Your task to perform on an android device: turn pop-ups on in chrome Image 0: 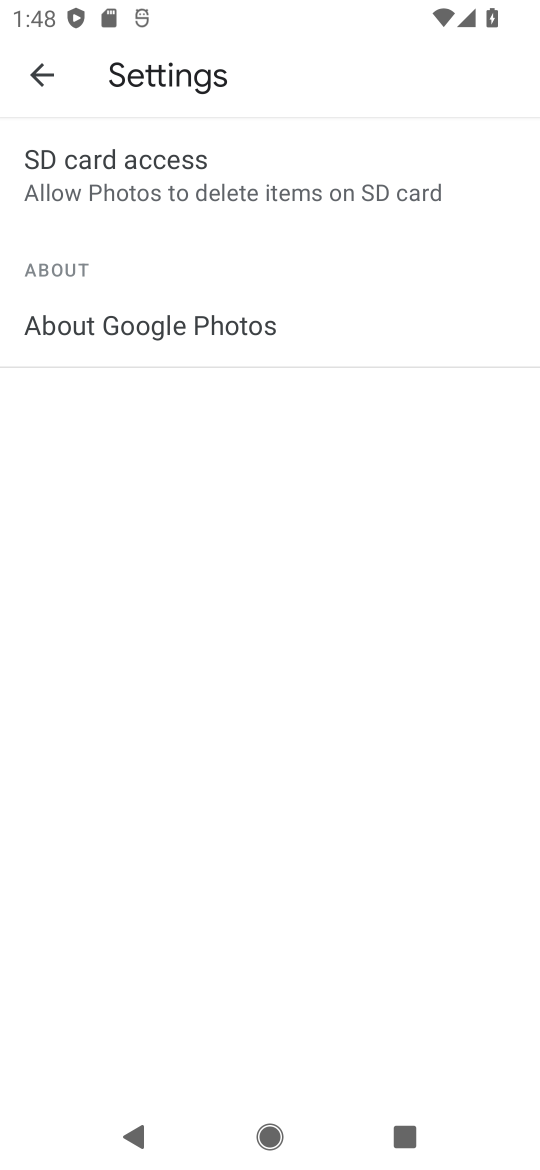
Step 0: press home button
Your task to perform on an android device: turn pop-ups on in chrome Image 1: 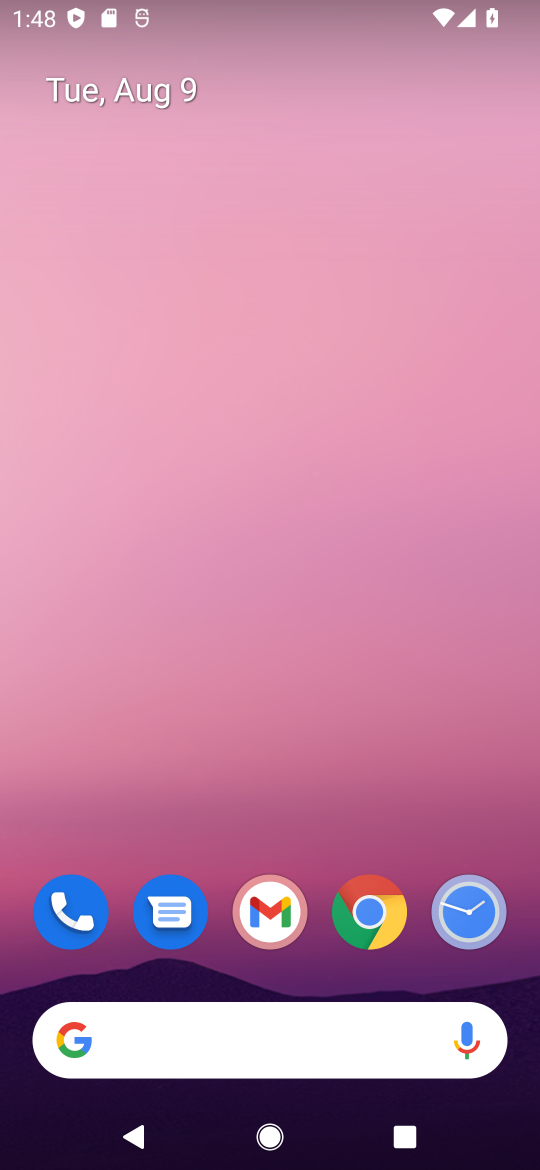
Step 1: click (372, 909)
Your task to perform on an android device: turn pop-ups on in chrome Image 2: 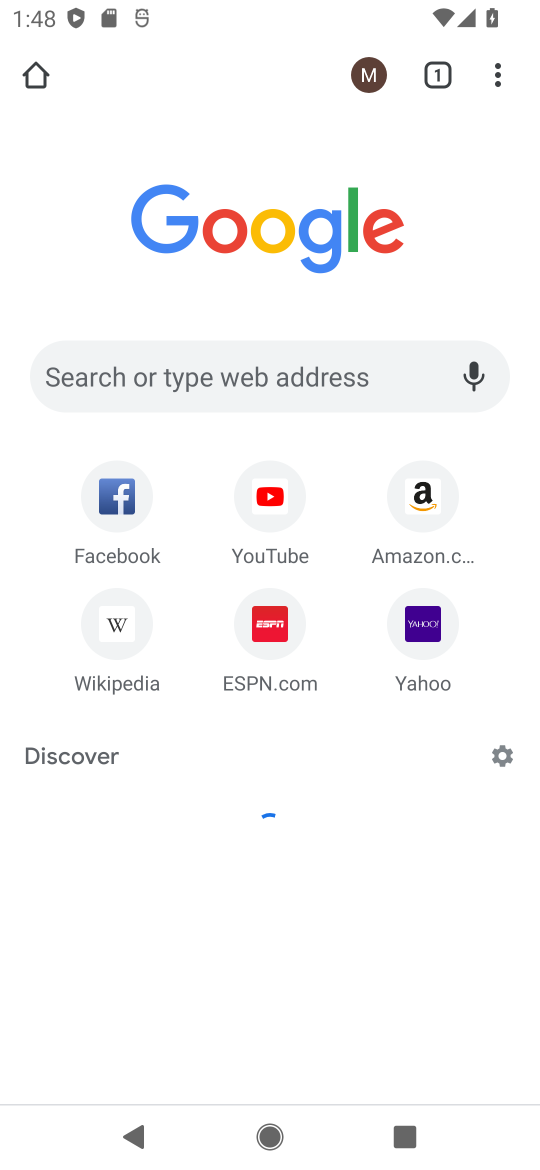
Step 2: click (499, 75)
Your task to perform on an android device: turn pop-ups on in chrome Image 3: 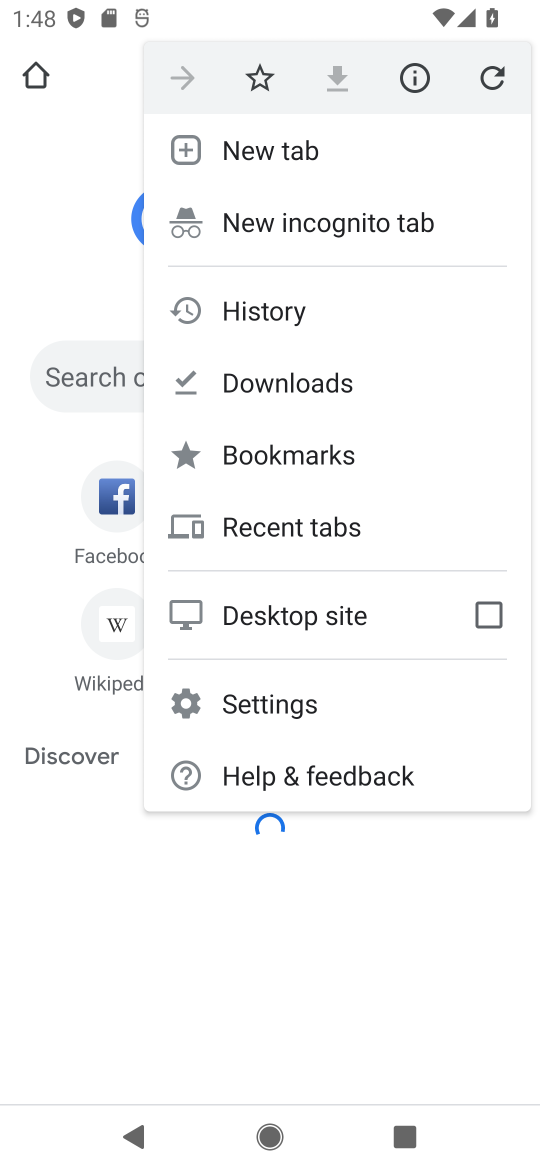
Step 3: click (277, 706)
Your task to perform on an android device: turn pop-ups on in chrome Image 4: 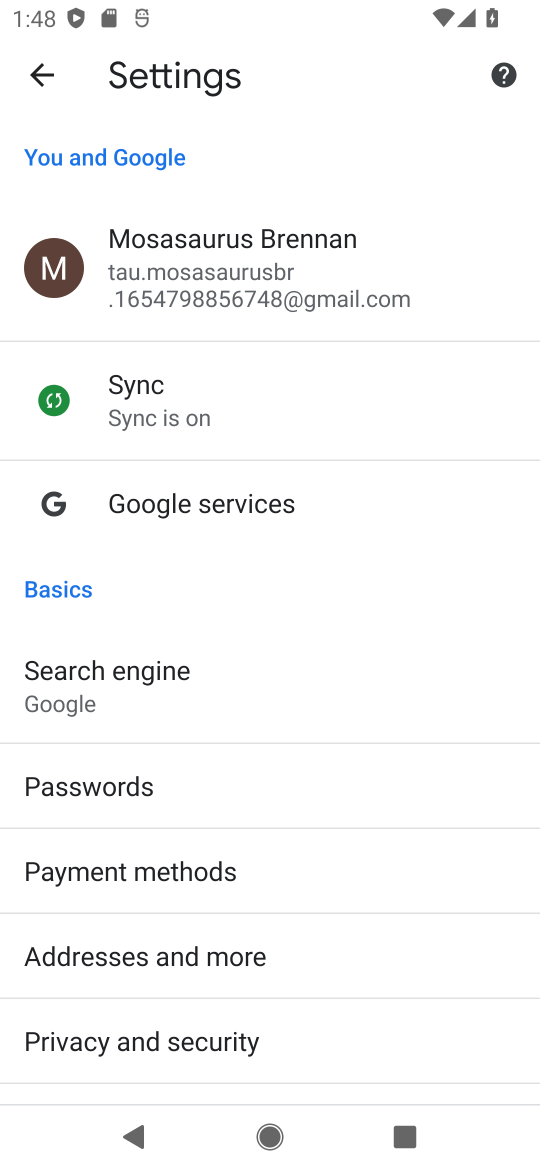
Step 4: drag from (320, 904) to (323, 413)
Your task to perform on an android device: turn pop-ups on in chrome Image 5: 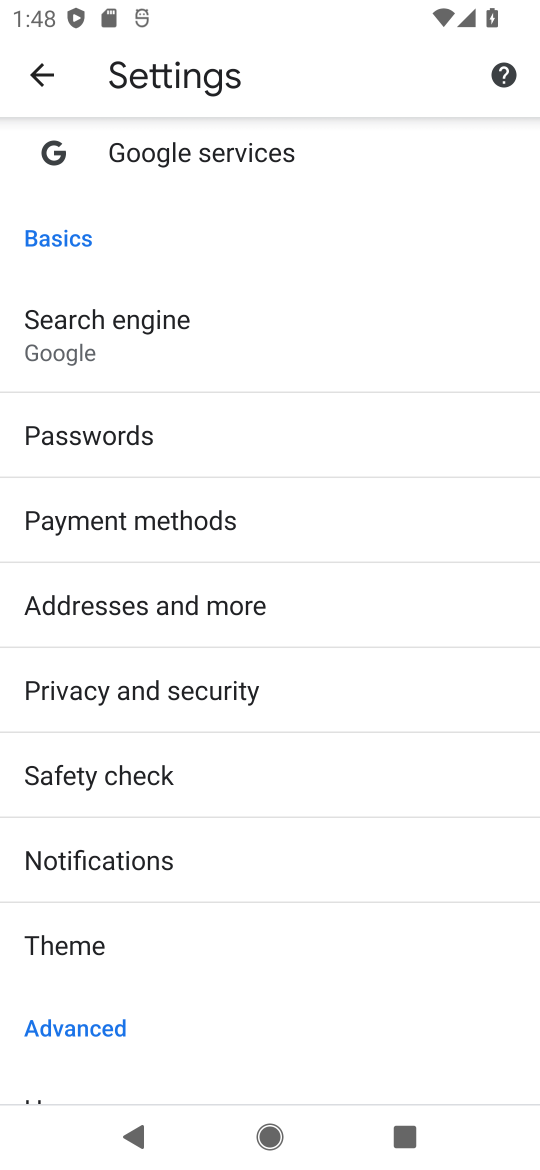
Step 5: drag from (286, 870) to (286, 315)
Your task to perform on an android device: turn pop-ups on in chrome Image 6: 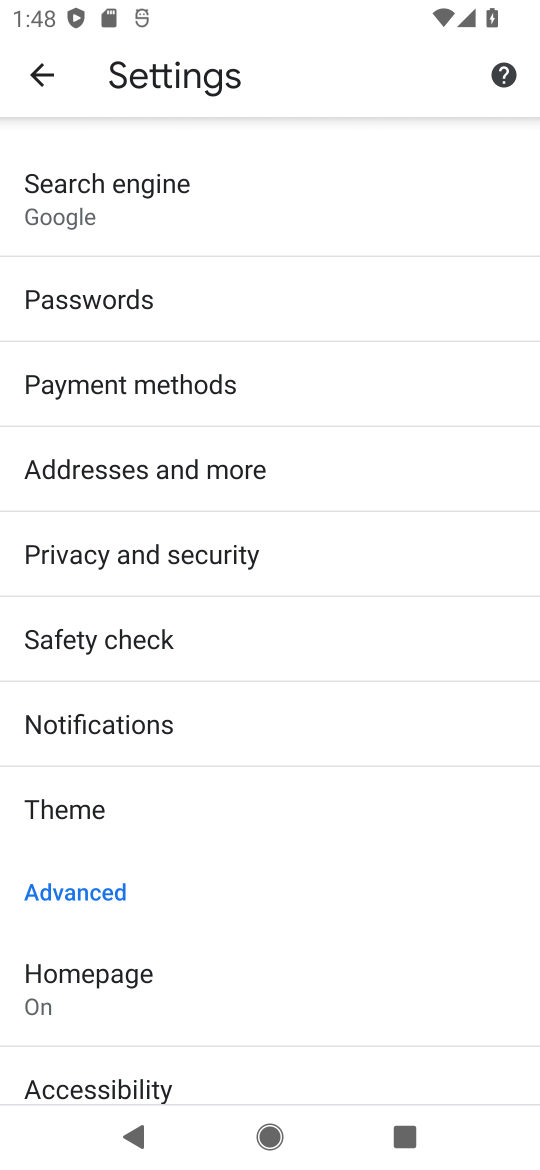
Step 6: drag from (232, 887) to (234, 272)
Your task to perform on an android device: turn pop-ups on in chrome Image 7: 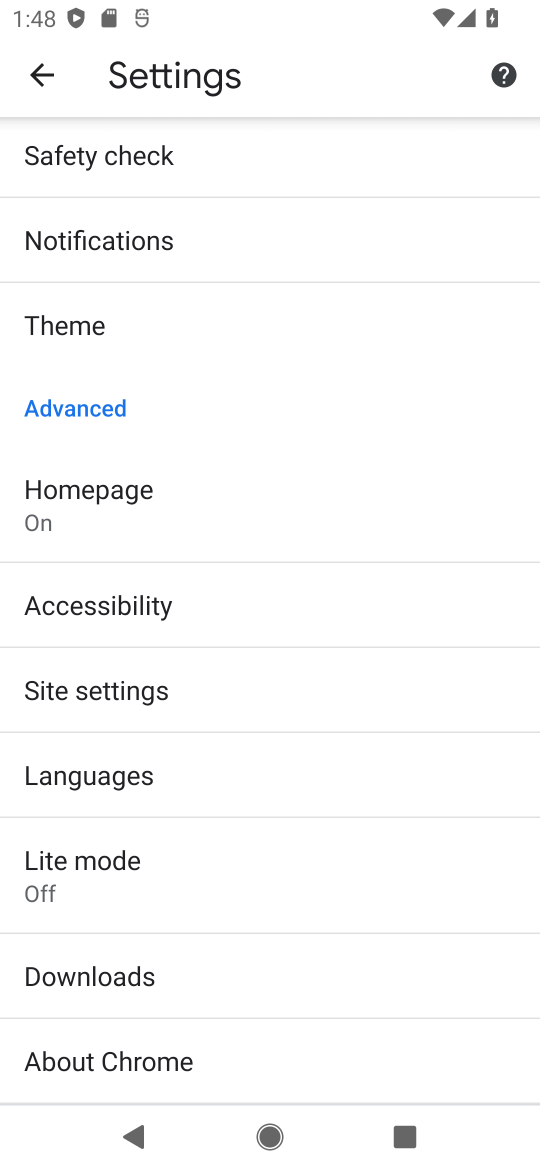
Step 7: click (109, 686)
Your task to perform on an android device: turn pop-ups on in chrome Image 8: 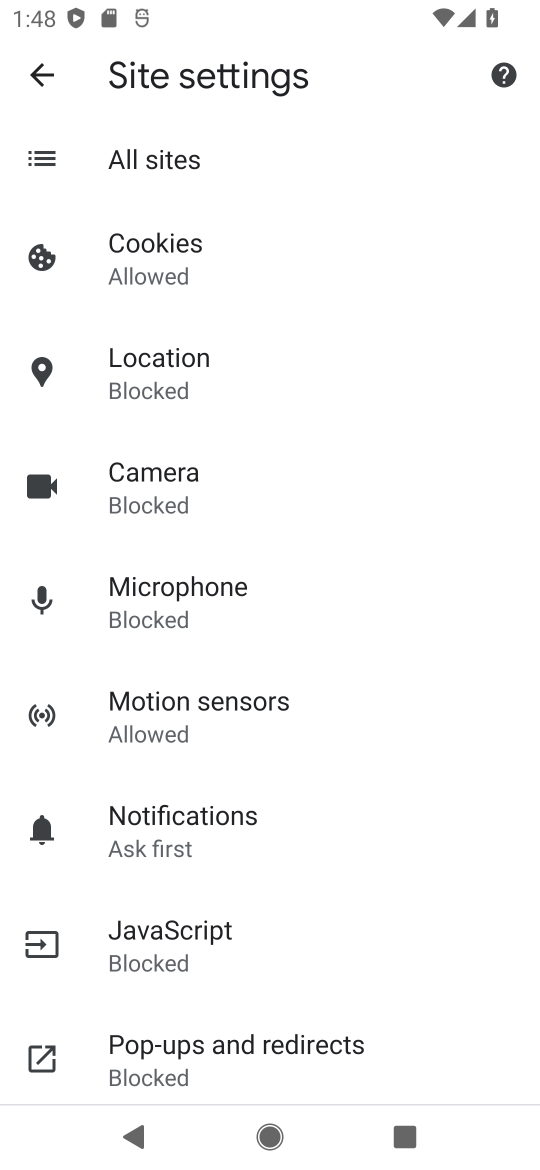
Step 8: click (210, 1041)
Your task to perform on an android device: turn pop-ups on in chrome Image 9: 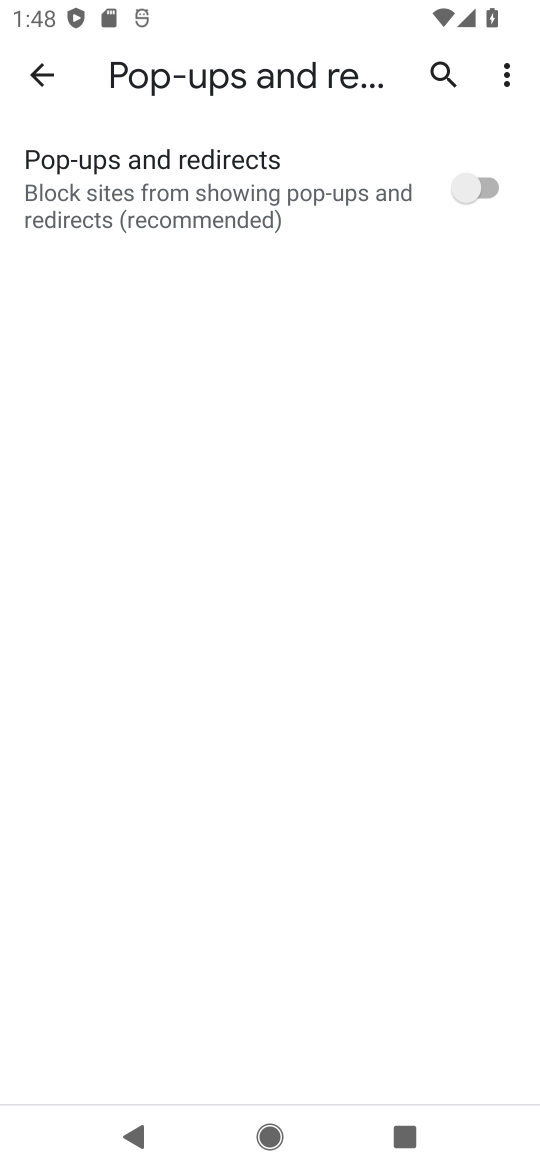
Step 9: click (475, 175)
Your task to perform on an android device: turn pop-ups on in chrome Image 10: 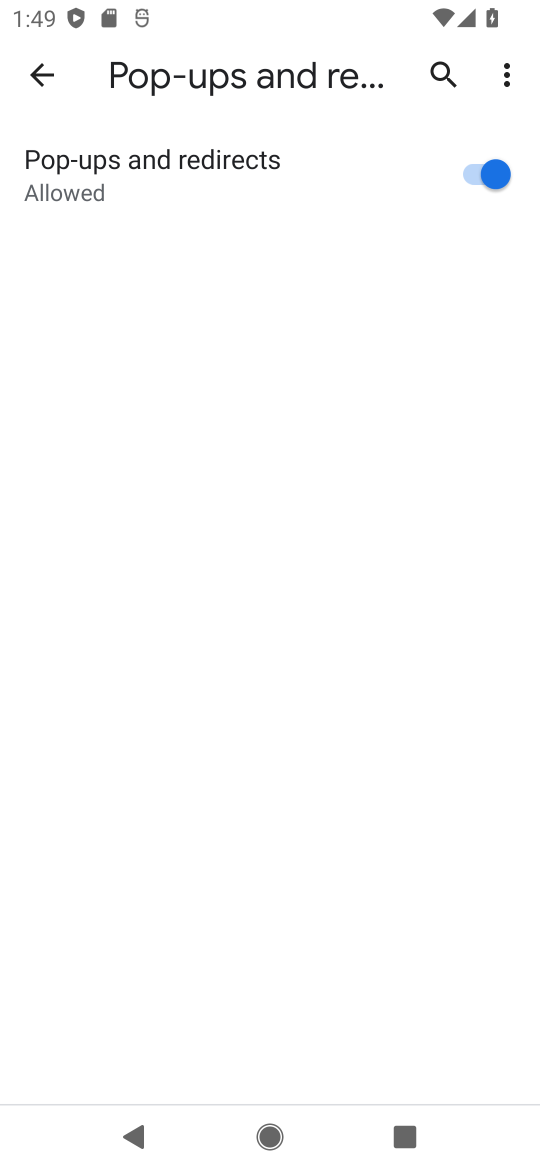
Step 10: task complete